Your task to perform on an android device: clear all cookies in the chrome app Image 0: 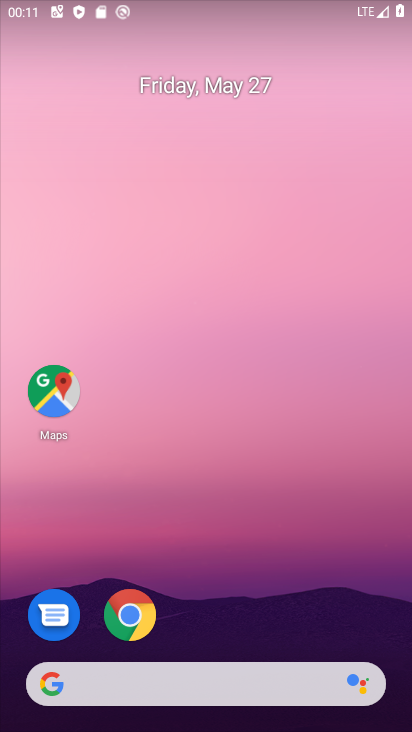
Step 0: click (146, 620)
Your task to perform on an android device: clear all cookies in the chrome app Image 1: 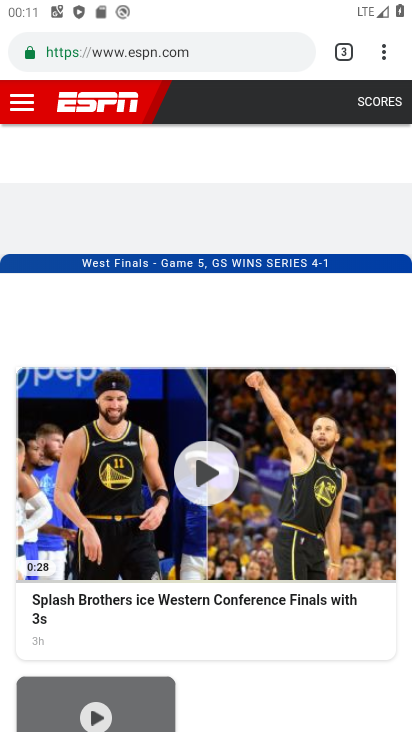
Step 1: click (385, 63)
Your task to perform on an android device: clear all cookies in the chrome app Image 2: 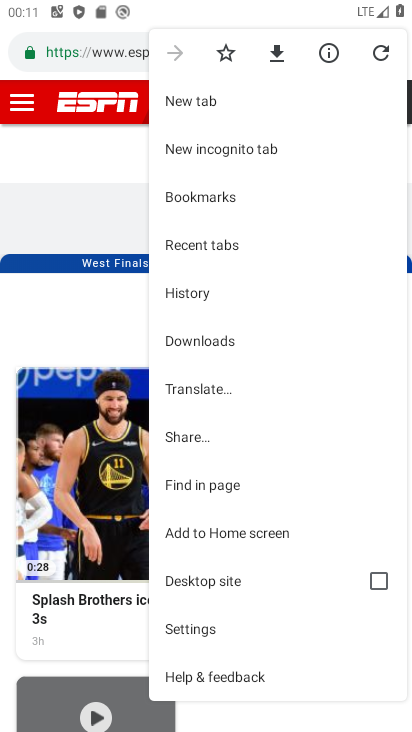
Step 2: click (163, 641)
Your task to perform on an android device: clear all cookies in the chrome app Image 3: 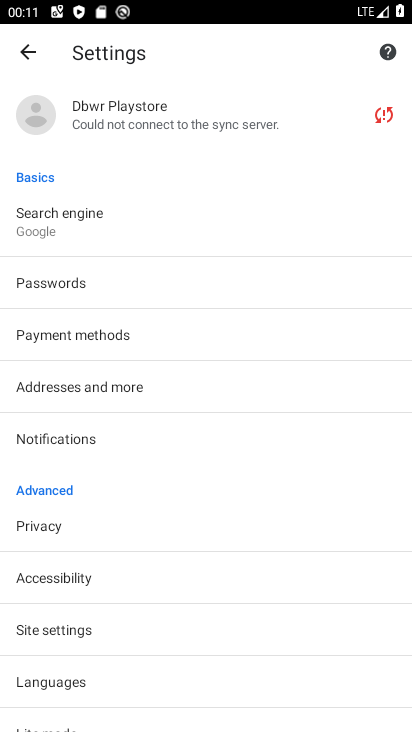
Step 3: click (43, 534)
Your task to perform on an android device: clear all cookies in the chrome app Image 4: 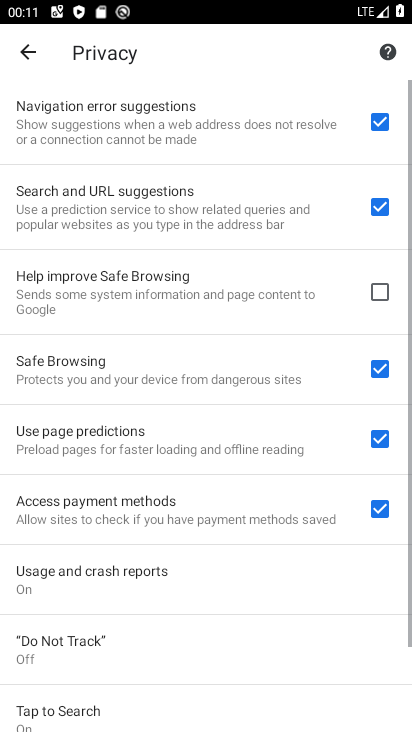
Step 4: drag from (145, 657) to (158, 105)
Your task to perform on an android device: clear all cookies in the chrome app Image 5: 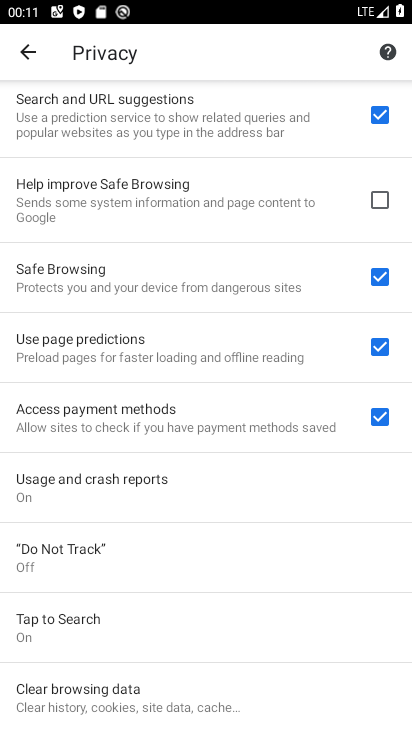
Step 5: click (131, 687)
Your task to perform on an android device: clear all cookies in the chrome app Image 6: 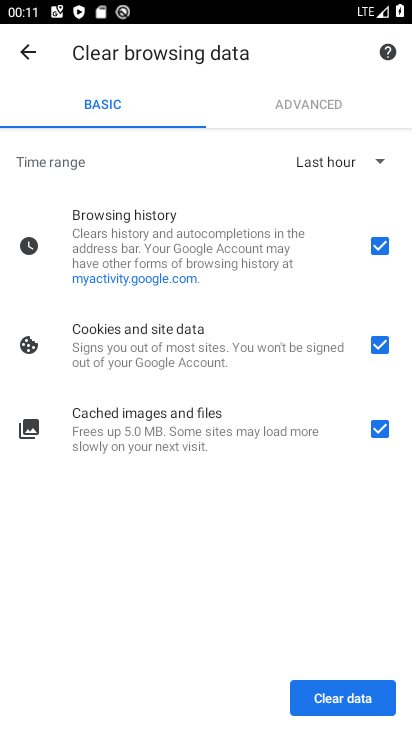
Step 6: click (374, 706)
Your task to perform on an android device: clear all cookies in the chrome app Image 7: 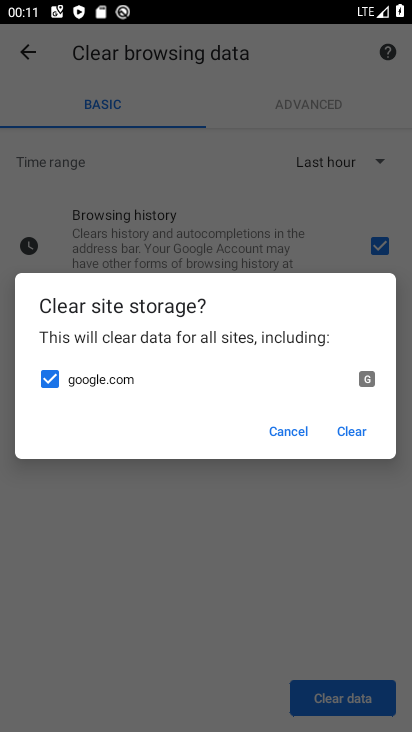
Step 7: click (347, 421)
Your task to perform on an android device: clear all cookies in the chrome app Image 8: 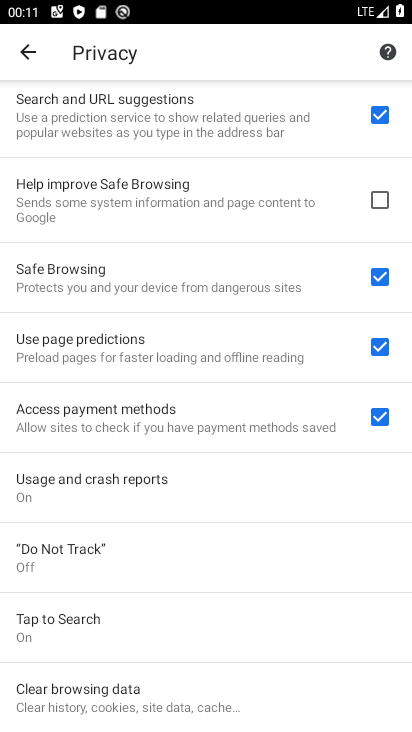
Step 8: task complete